Your task to perform on an android device: check data usage Image 0: 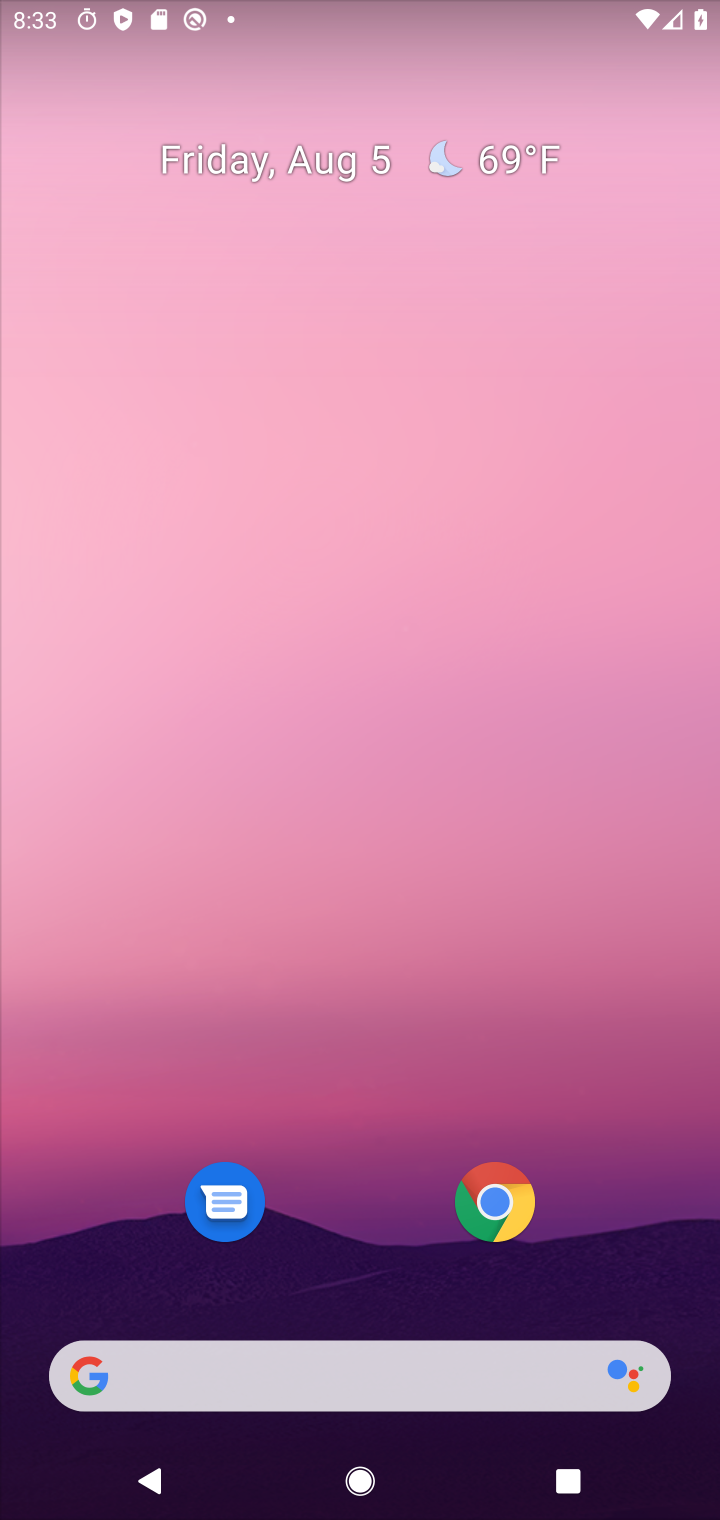
Step 0: click (206, 139)
Your task to perform on an android device: check data usage Image 1: 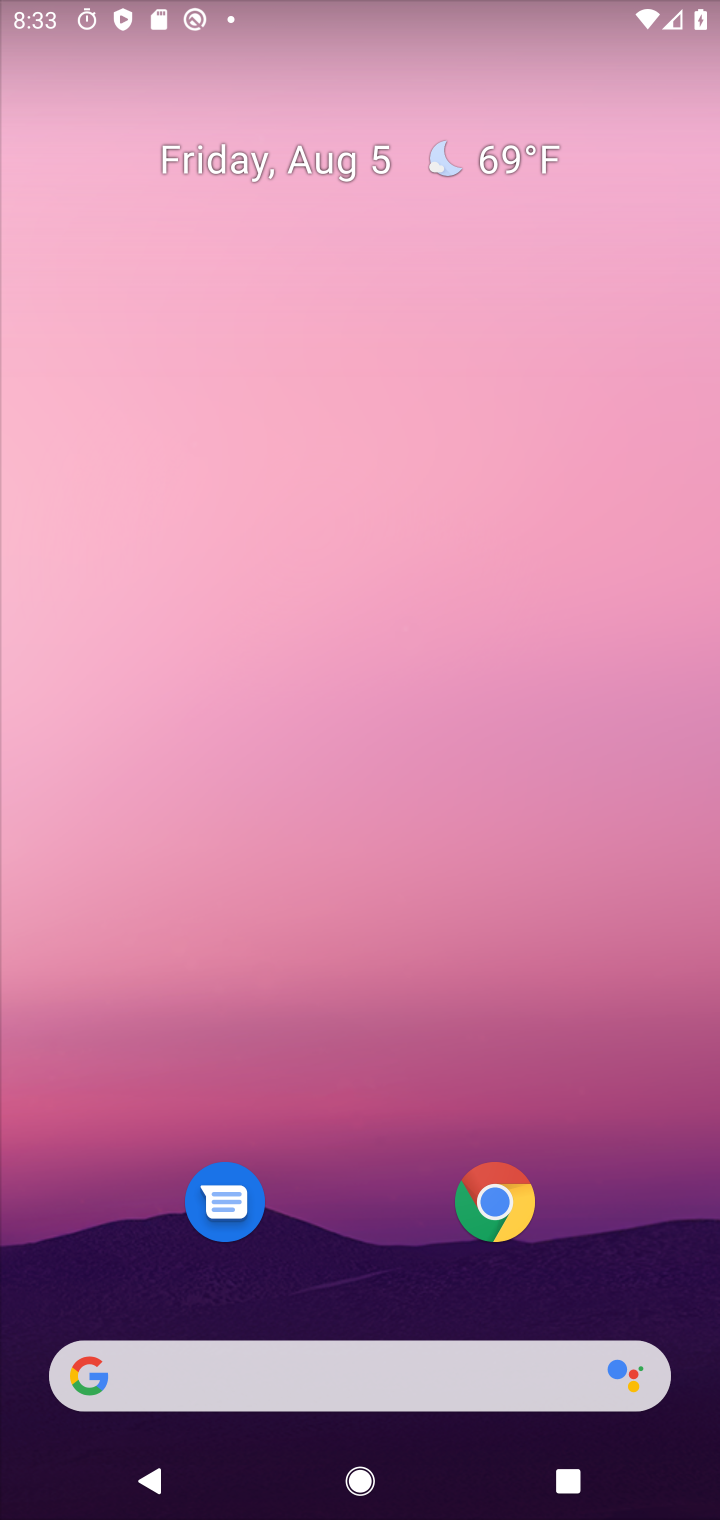
Step 1: drag from (419, 669) to (469, 219)
Your task to perform on an android device: check data usage Image 2: 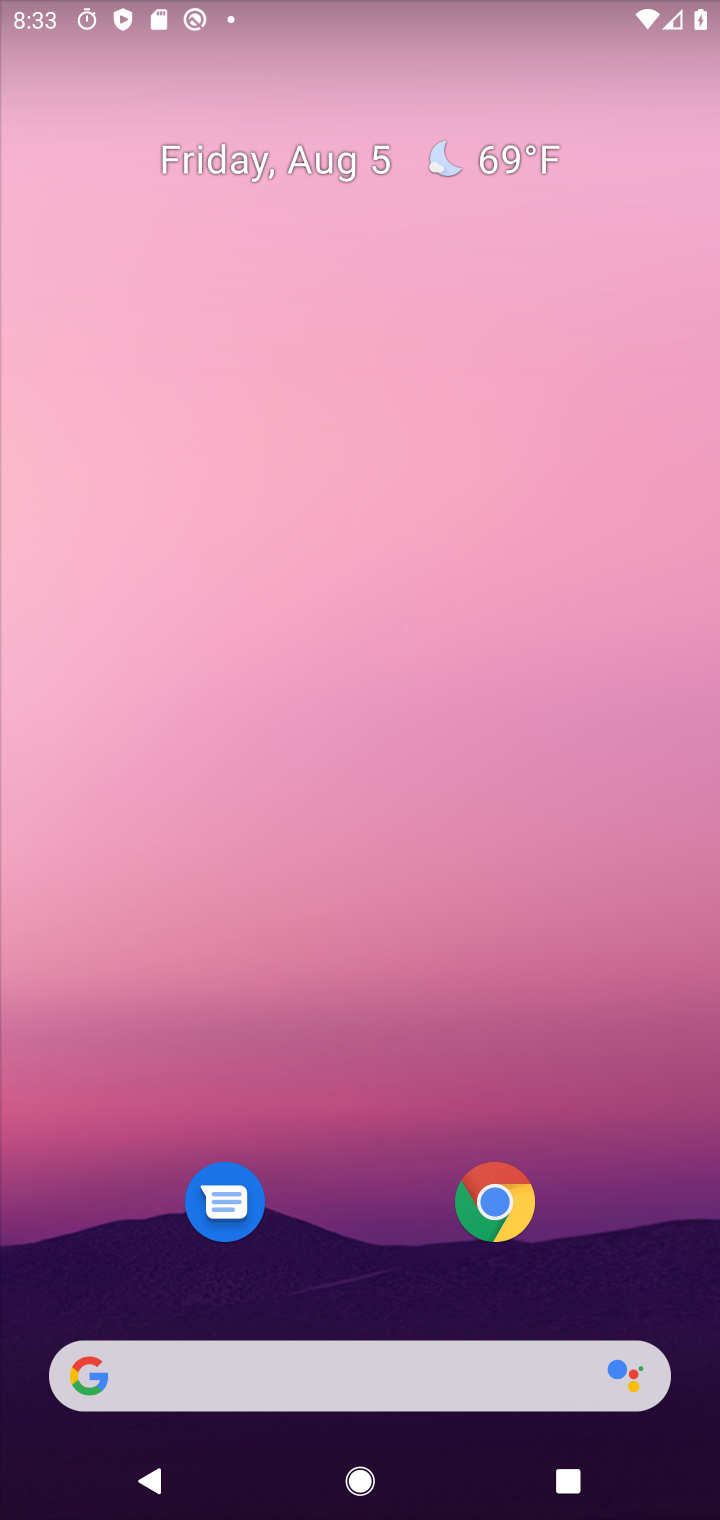
Step 2: drag from (346, 1142) to (370, 75)
Your task to perform on an android device: check data usage Image 3: 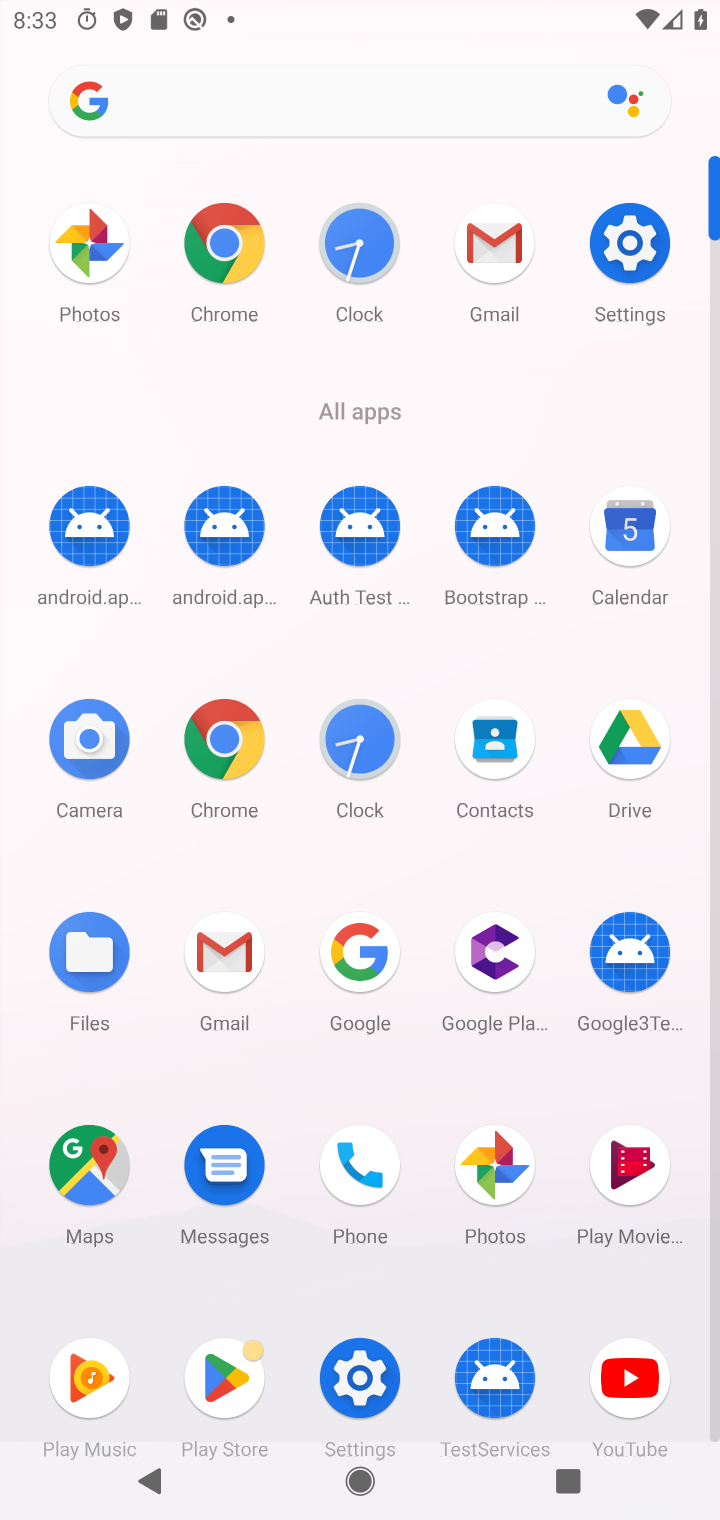
Step 3: click (622, 252)
Your task to perform on an android device: check data usage Image 4: 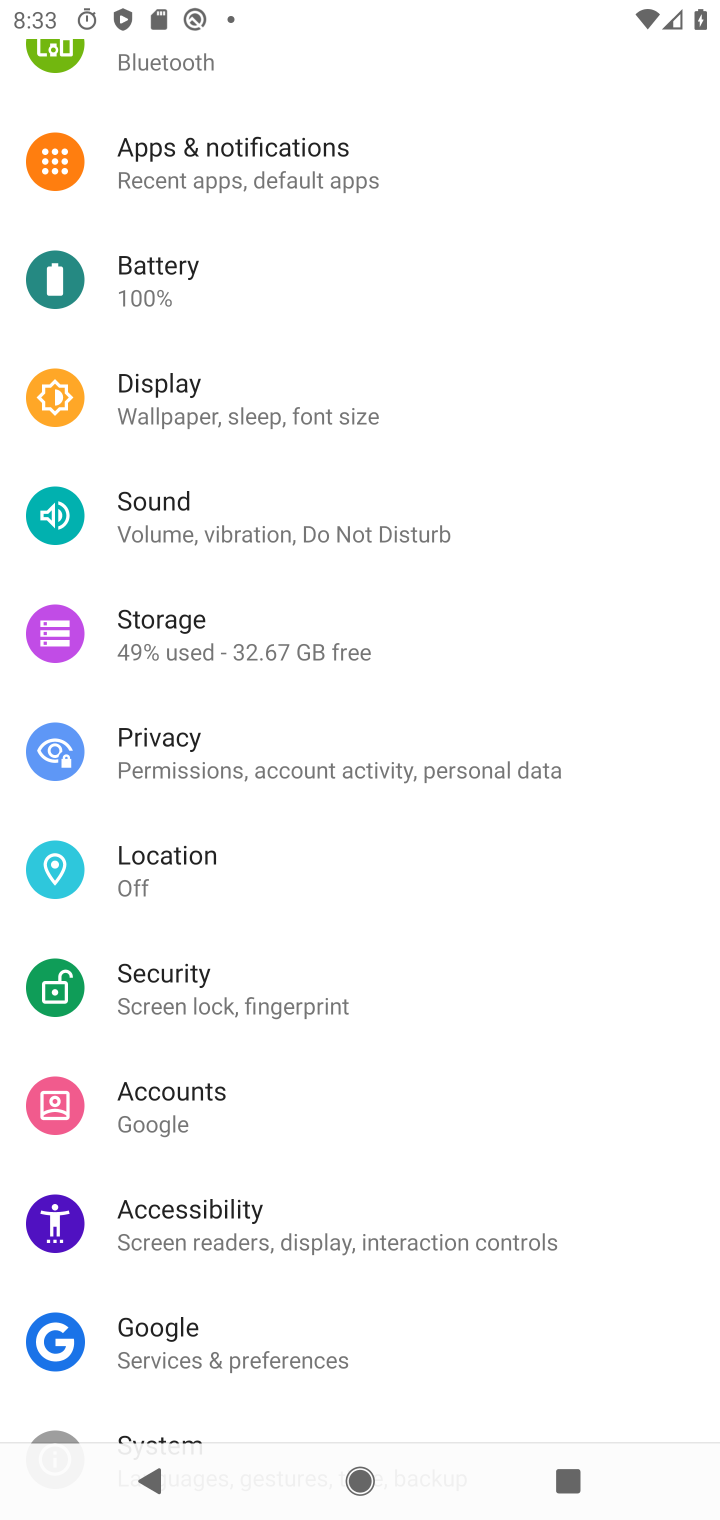
Step 4: drag from (230, 163) to (229, 754)
Your task to perform on an android device: check data usage Image 5: 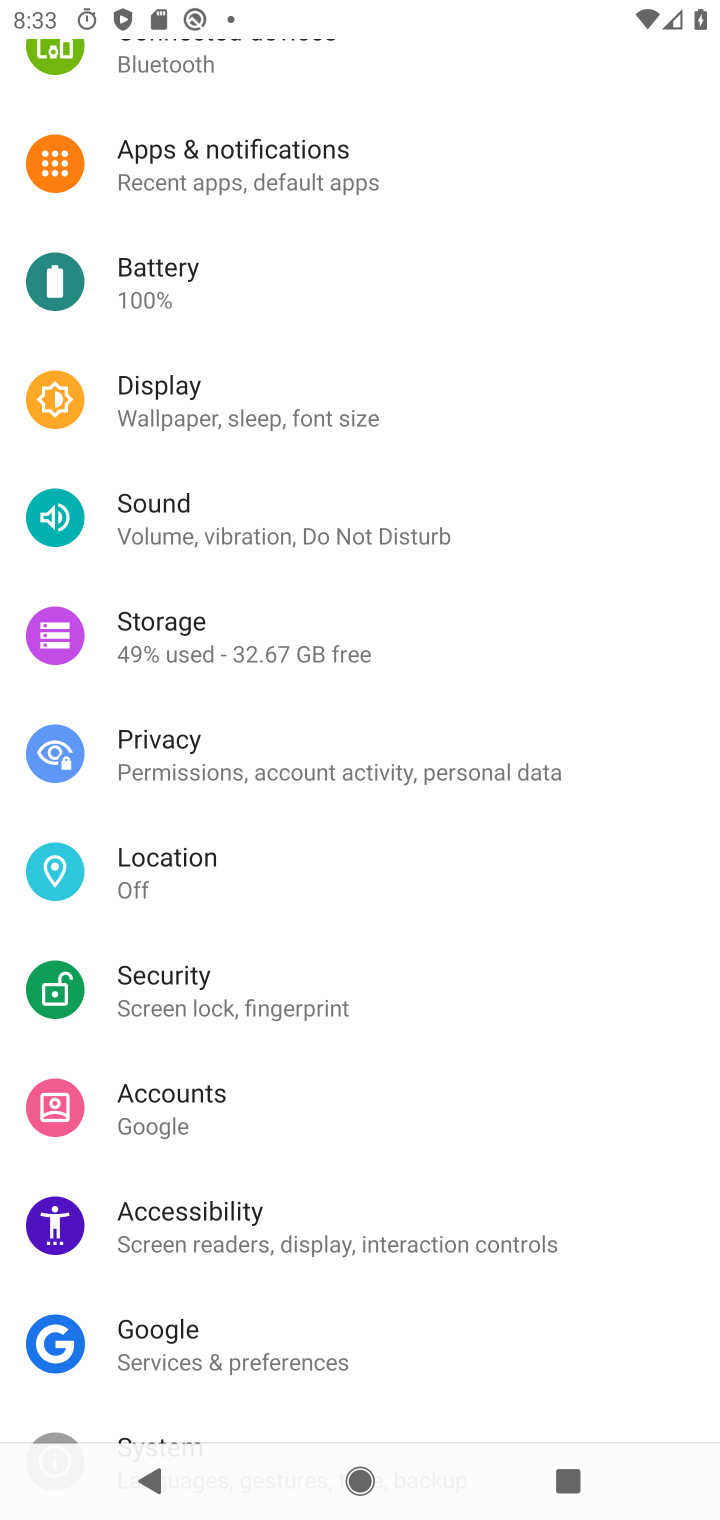
Step 5: drag from (355, 249) to (316, 1020)
Your task to perform on an android device: check data usage Image 6: 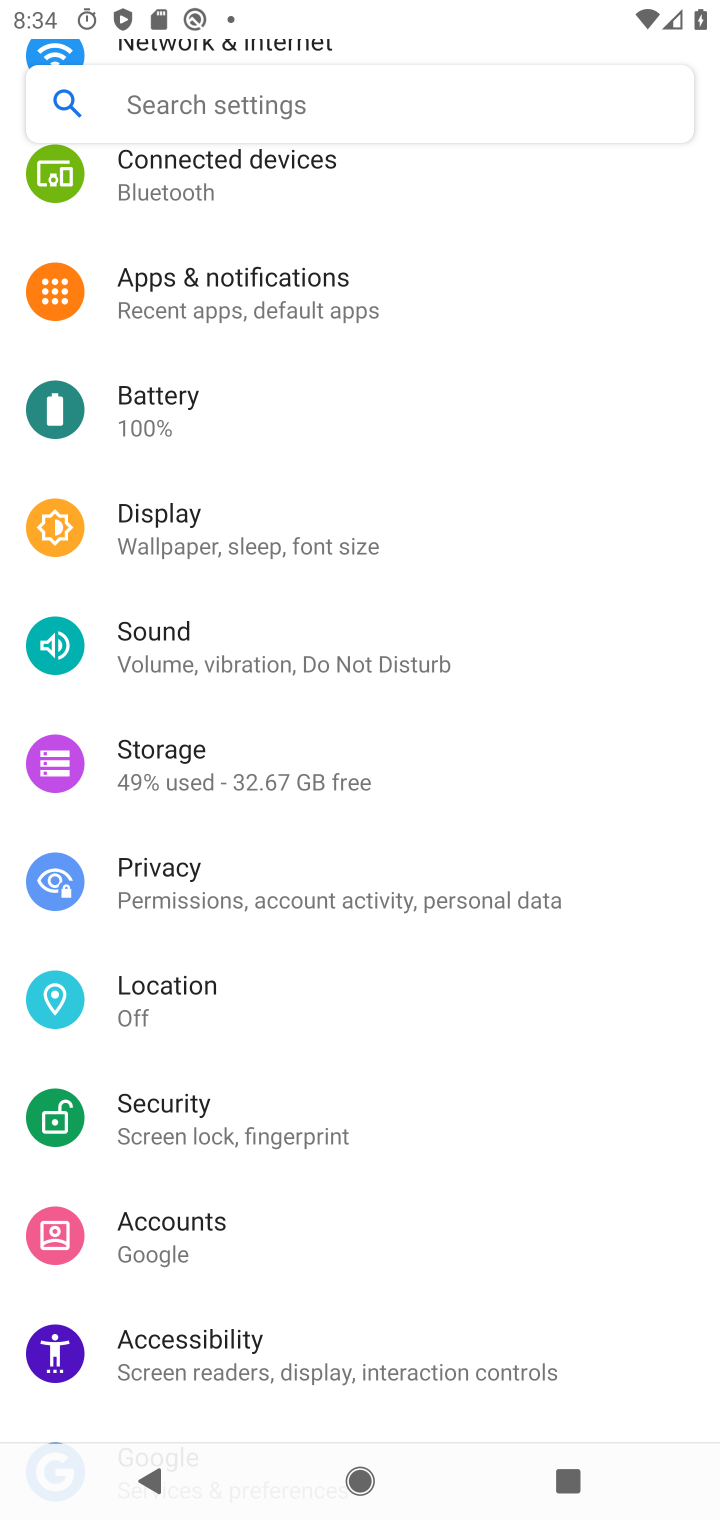
Step 6: drag from (321, 228) to (277, 1022)
Your task to perform on an android device: check data usage Image 7: 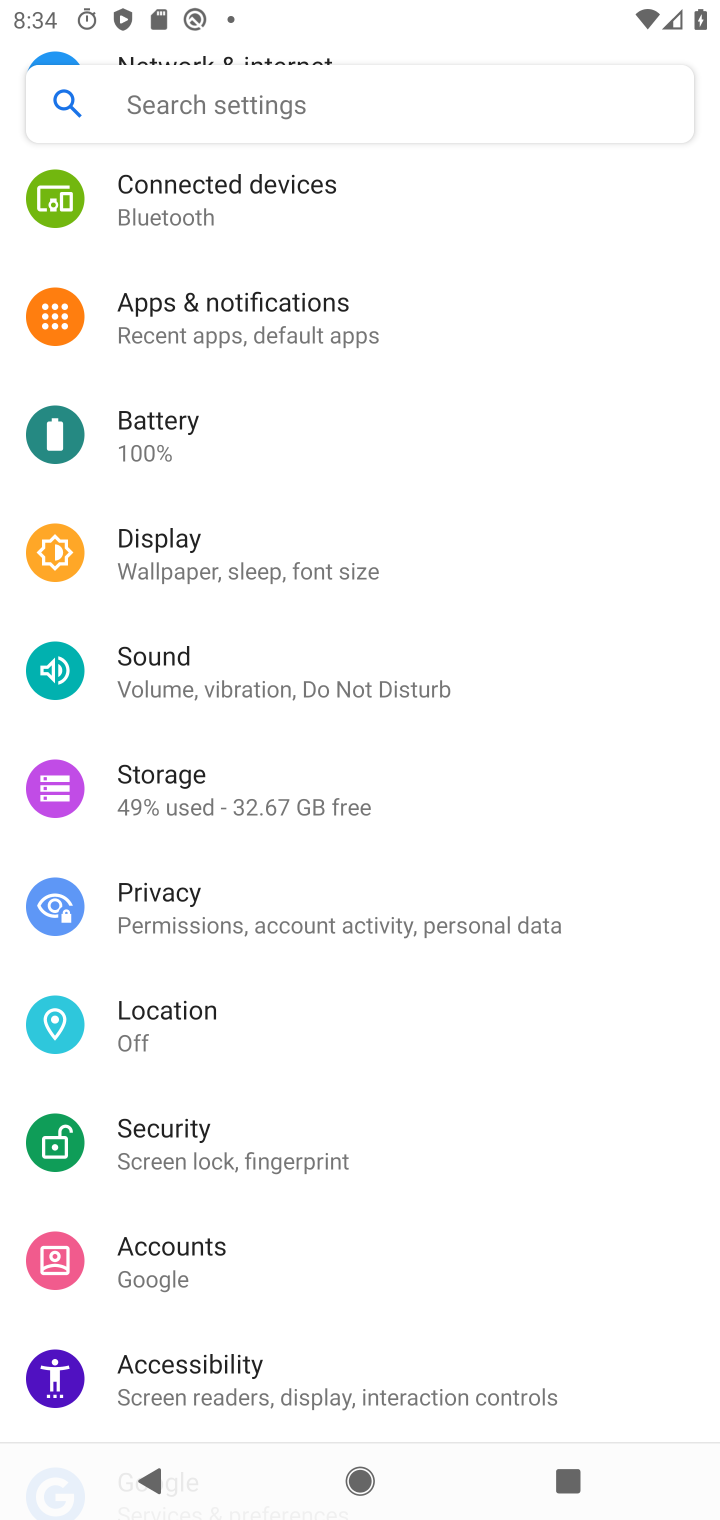
Step 7: drag from (459, 258) to (442, 846)
Your task to perform on an android device: check data usage Image 8: 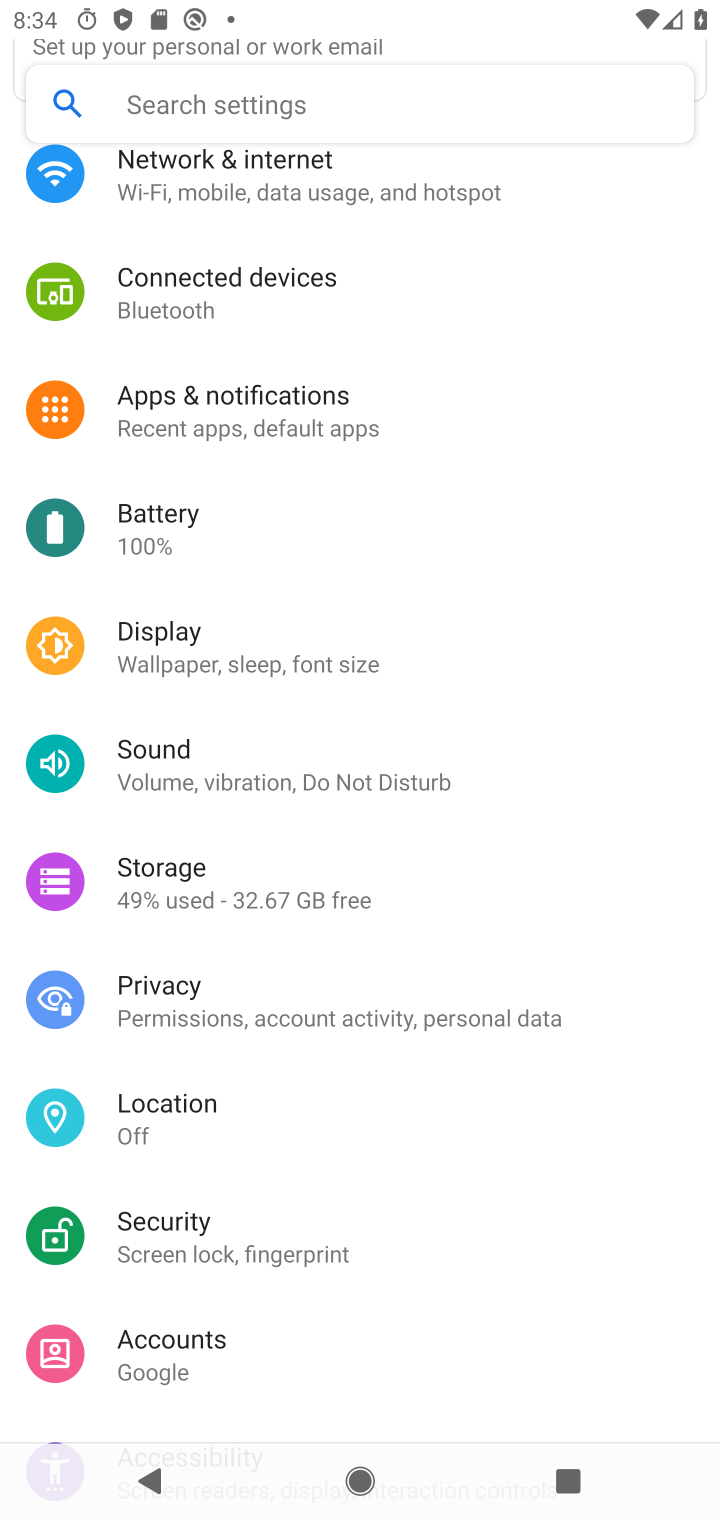
Step 8: click (280, 185)
Your task to perform on an android device: check data usage Image 9: 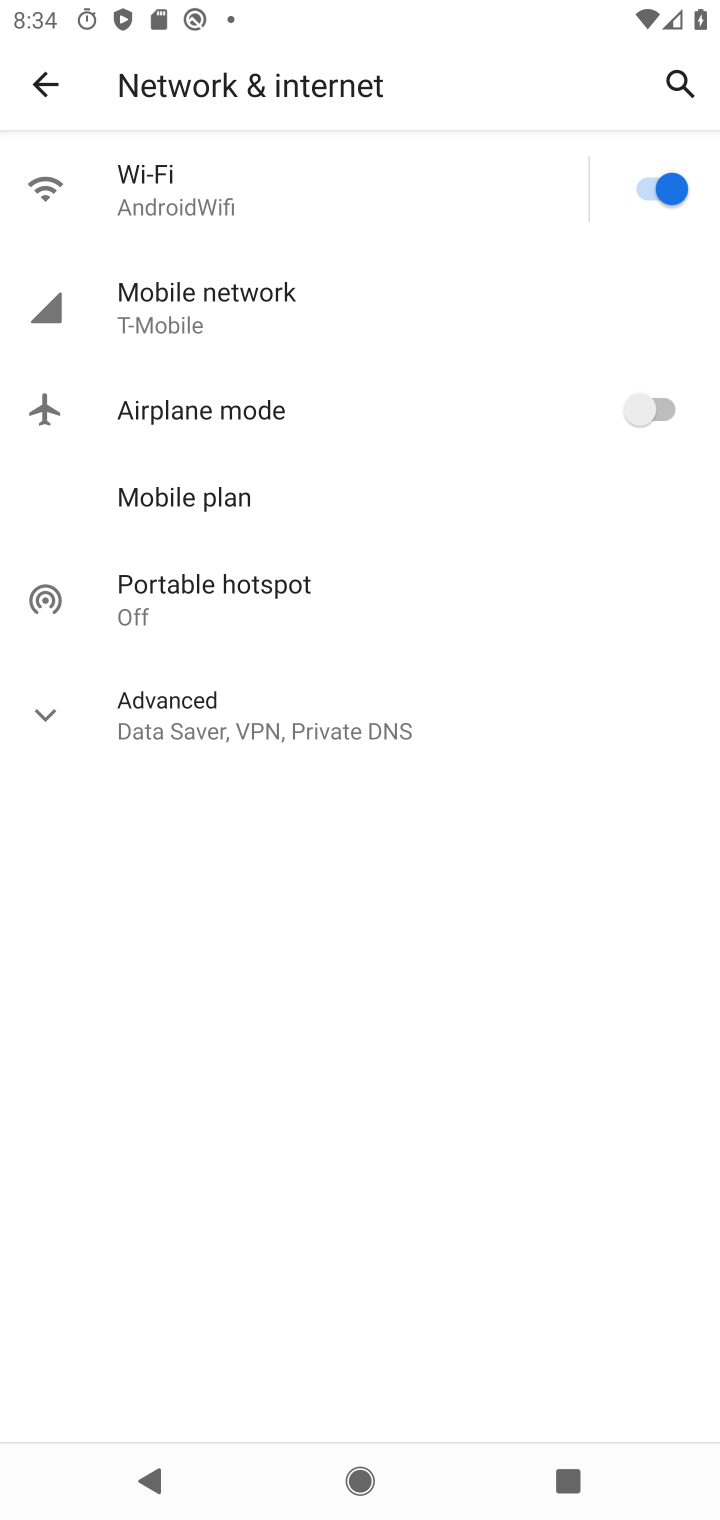
Step 9: click (205, 288)
Your task to perform on an android device: check data usage Image 10: 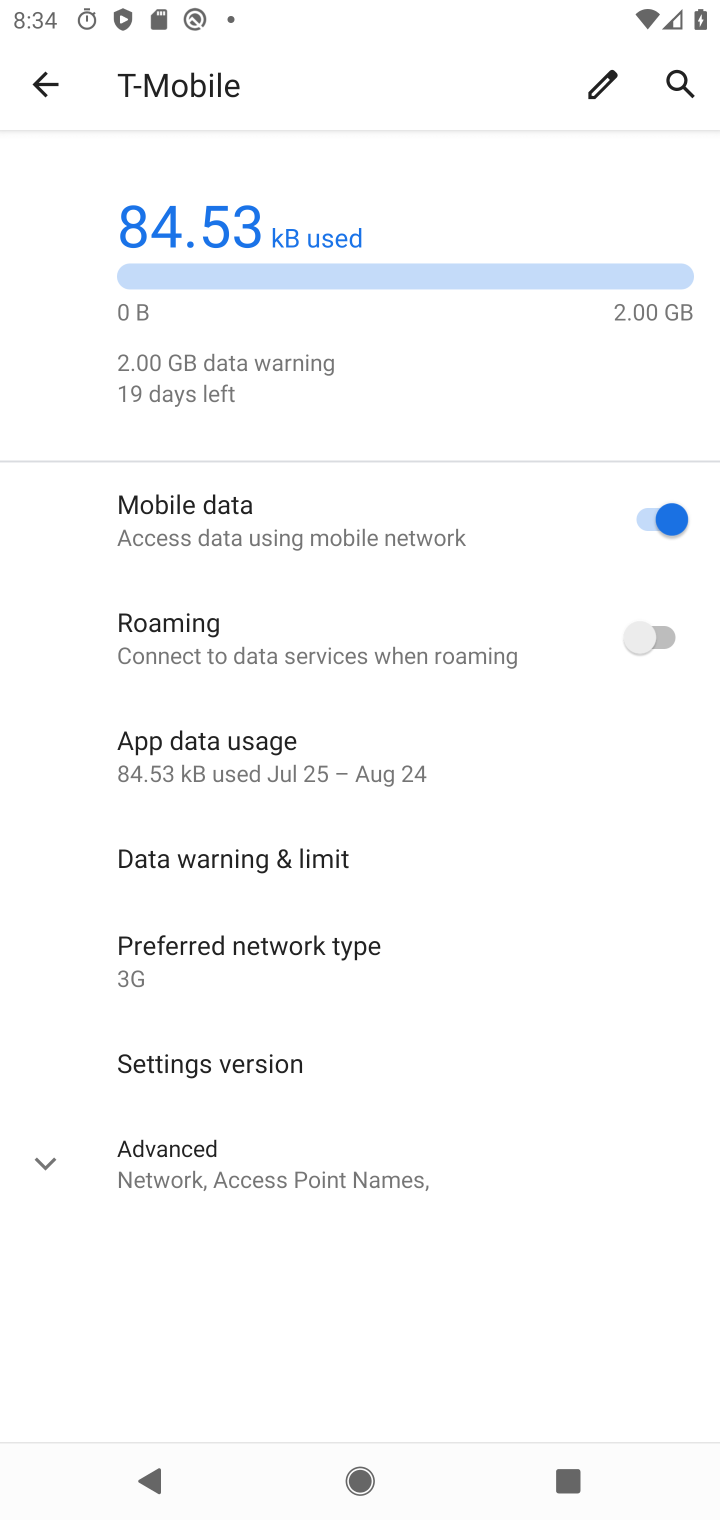
Step 10: click (268, 778)
Your task to perform on an android device: check data usage Image 11: 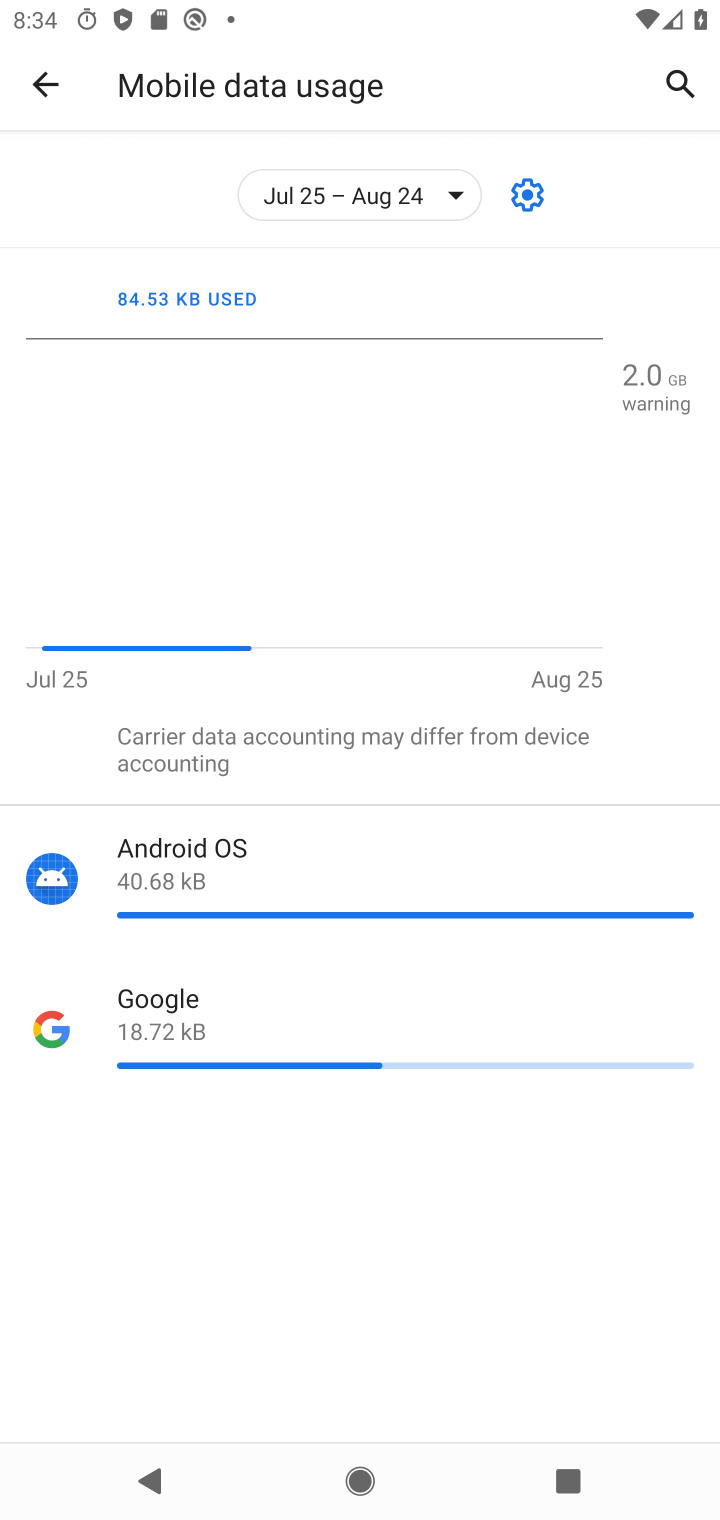
Step 11: task complete